Your task to perform on an android device: remove spam from my inbox in the gmail app Image 0: 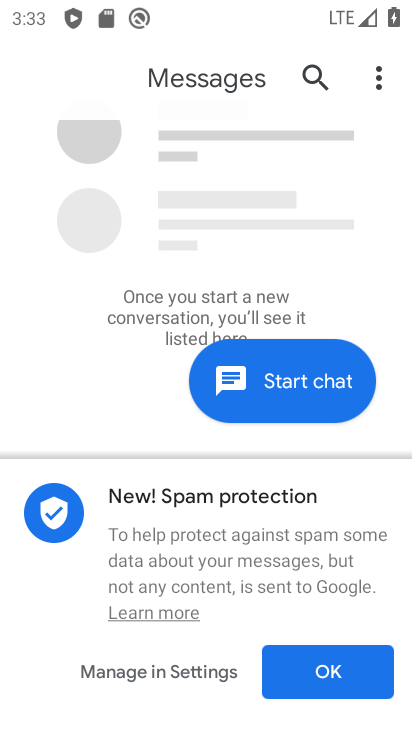
Step 0: press back button
Your task to perform on an android device: remove spam from my inbox in the gmail app Image 1: 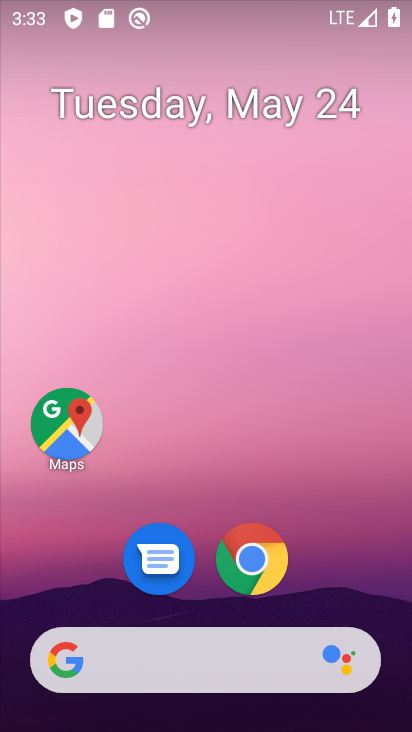
Step 1: drag from (338, 572) to (284, 67)
Your task to perform on an android device: remove spam from my inbox in the gmail app Image 2: 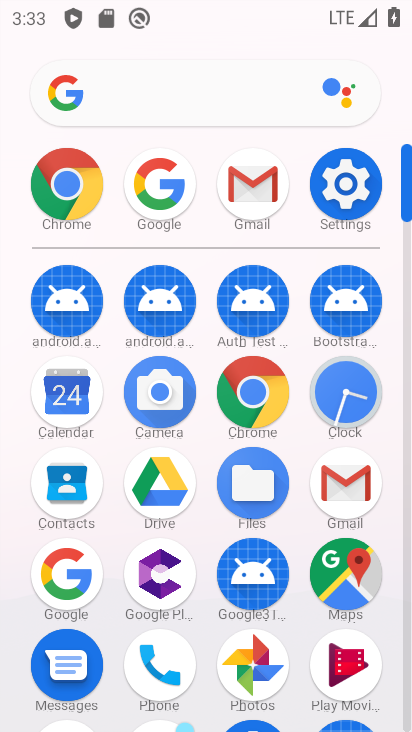
Step 2: click (252, 186)
Your task to perform on an android device: remove spam from my inbox in the gmail app Image 3: 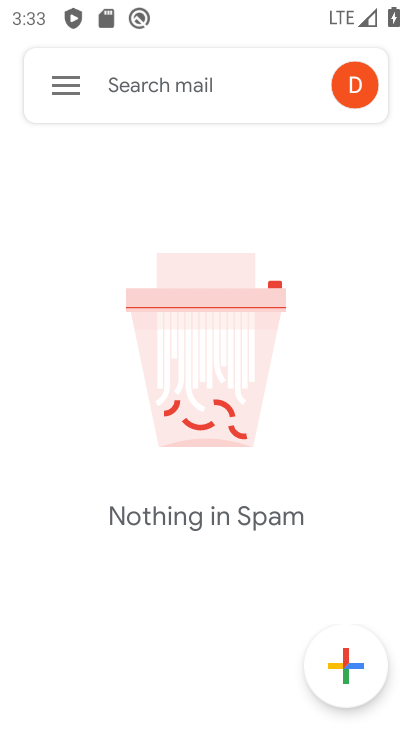
Step 3: click (61, 73)
Your task to perform on an android device: remove spam from my inbox in the gmail app Image 4: 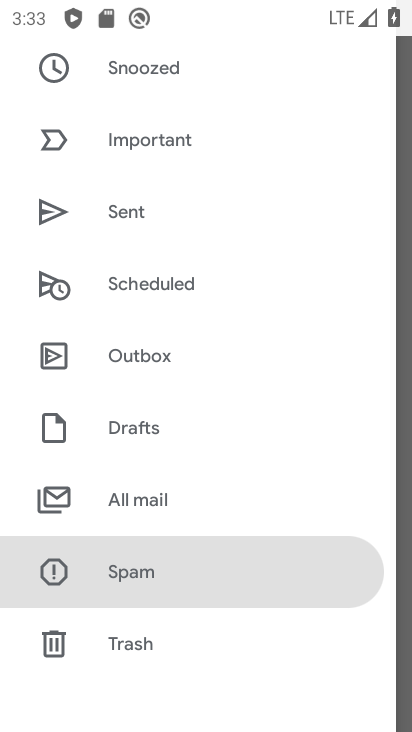
Step 4: click (159, 560)
Your task to perform on an android device: remove spam from my inbox in the gmail app Image 5: 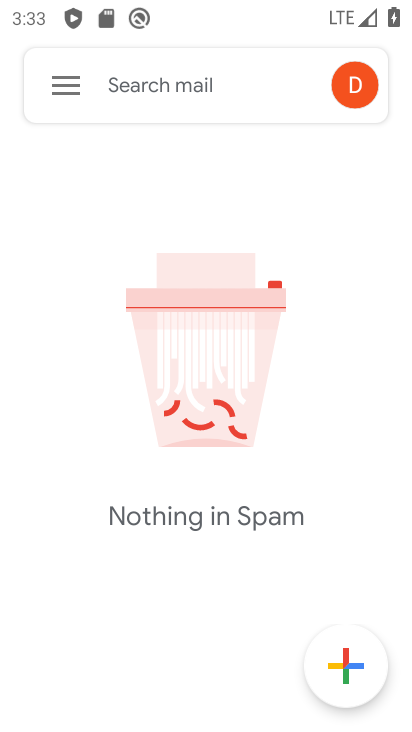
Step 5: task complete